Your task to perform on an android device: Open eBay Image 0: 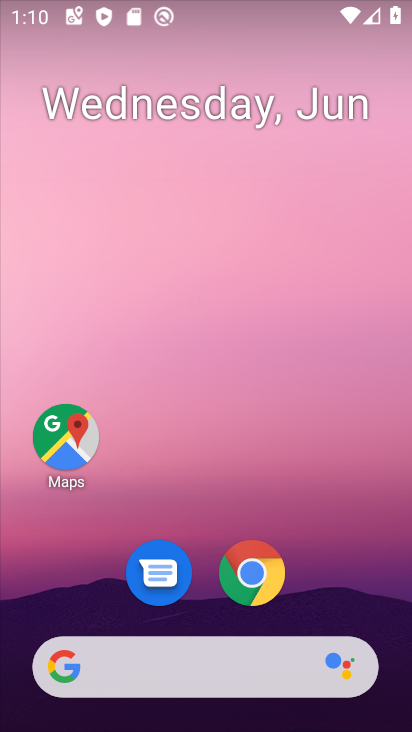
Step 0: drag from (359, 591) to (257, 150)
Your task to perform on an android device: Open eBay Image 1: 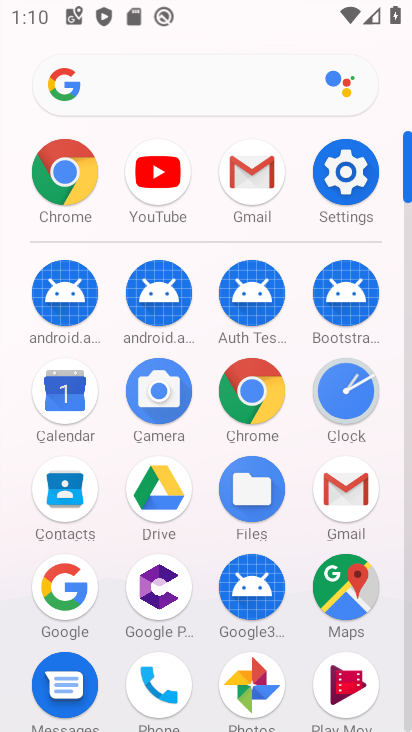
Step 1: click (273, 406)
Your task to perform on an android device: Open eBay Image 2: 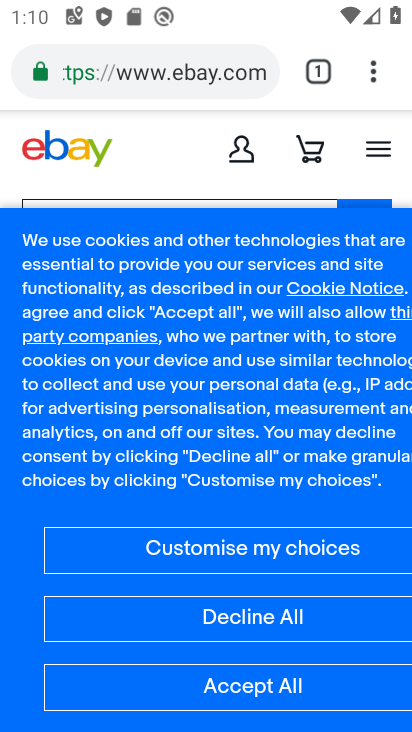
Step 2: task complete